Your task to perform on an android device: Set the phone to "Do not disturb". Image 0: 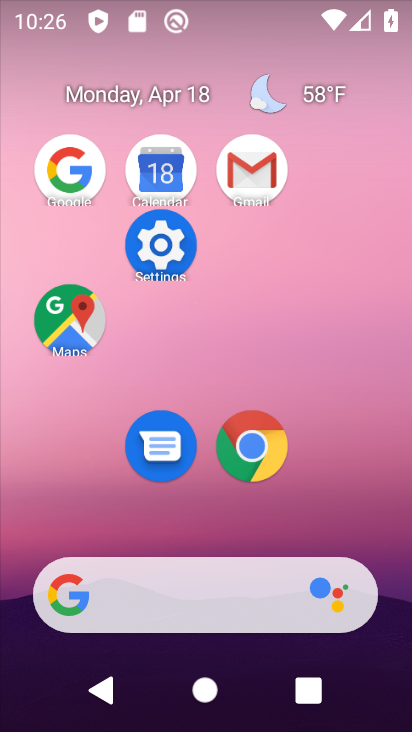
Step 0: click (155, 244)
Your task to perform on an android device: Set the phone to "Do not disturb". Image 1: 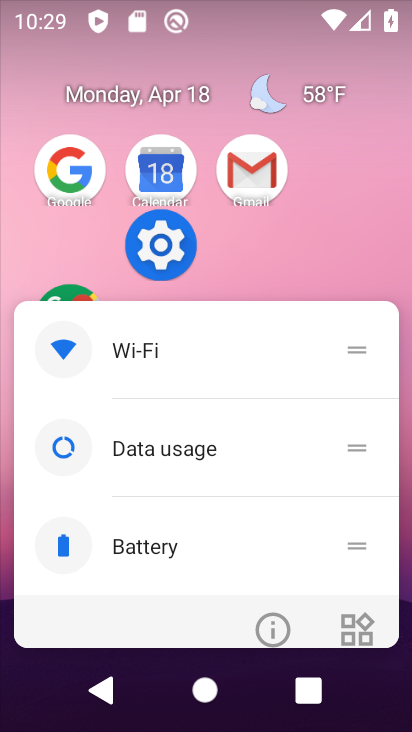
Step 1: click (172, 249)
Your task to perform on an android device: Set the phone to "Do not disturb". Image 2: 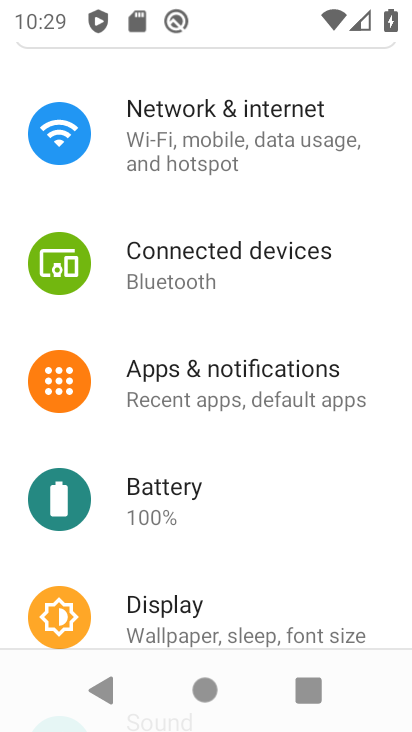
Step 2: drag from (265, 490) to (290, 236)
Your task to perform on an android device: Set the phone to "Do not disturb". Image 3: 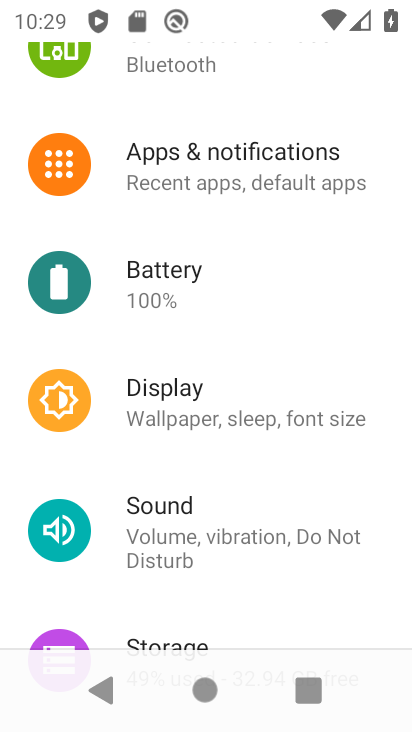
Step 3: click (290, 525)
Your task to perform on an android device: Set the phone to "Do not disturb". Image 4: 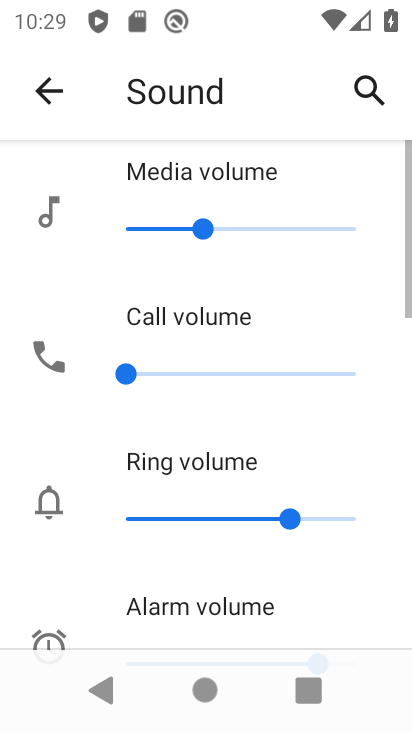
Step 4: drag from (250, 496) to (276, 144)
Your task to perform on an android device: Set the phone to "Do not disturb". Image 5: 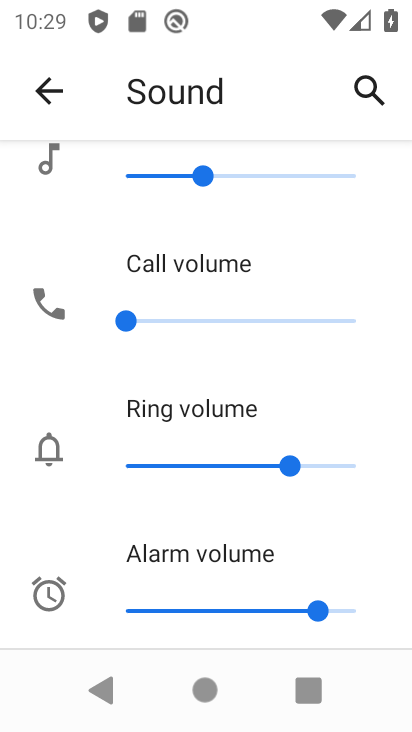
Step 5: drag from (244, 551) to (265, 167)
Your task to perform on an android device: Set the phone to "Do not disturb". Image 6: 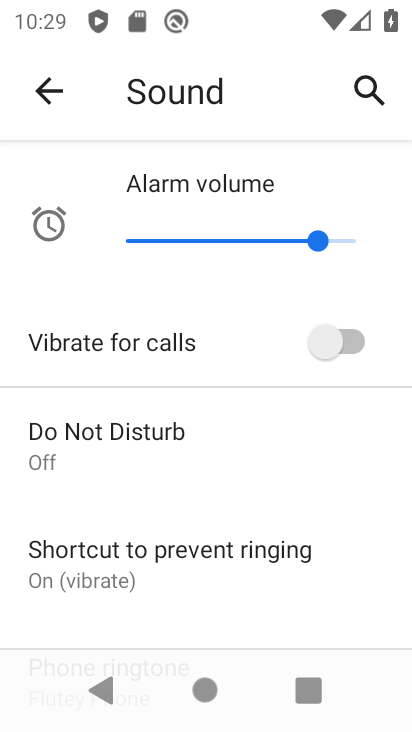
Step 6: click (228, 470)
Your task to perform on an android device: Set the phone to "Do not disturb". Image 7: 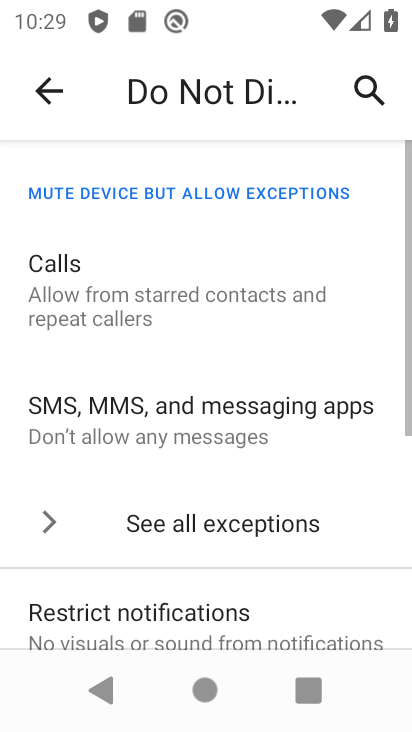
Step 7: drag from (223, 522) to (240, 181)
Your task to perform on an android device: Set the phone to "Do not disturb". Image 8: 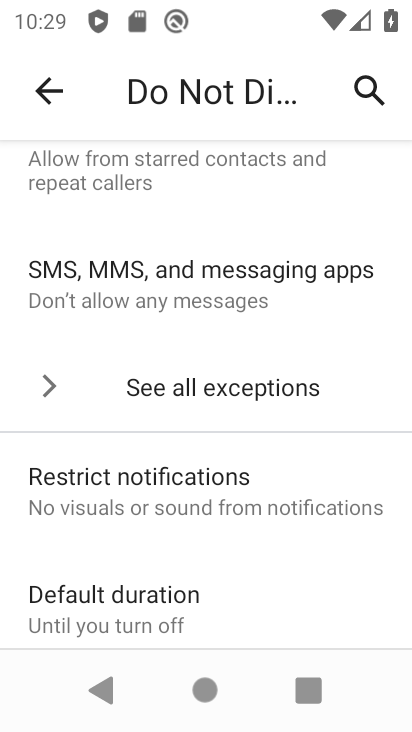
Step 8: drag from (232, 535) to (253, 185)
Your task to perform on an android device: Set the phone to "Do not disturb". Image 9: 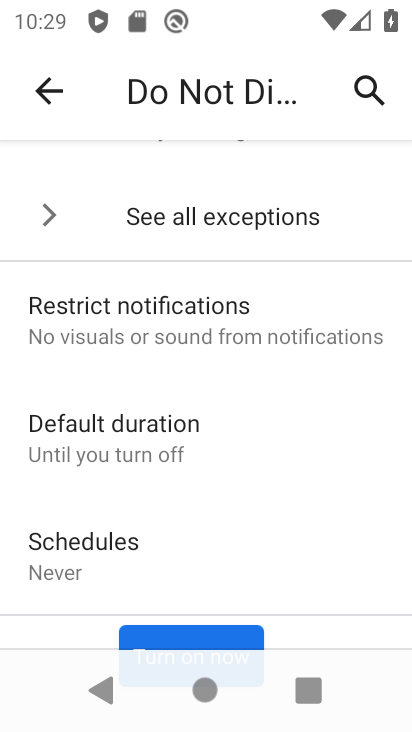
Step 9: drag from (218, 524) to (235, 159)
Your task to perform on an android device: Set the phone to "Do not disturb". Image 10: 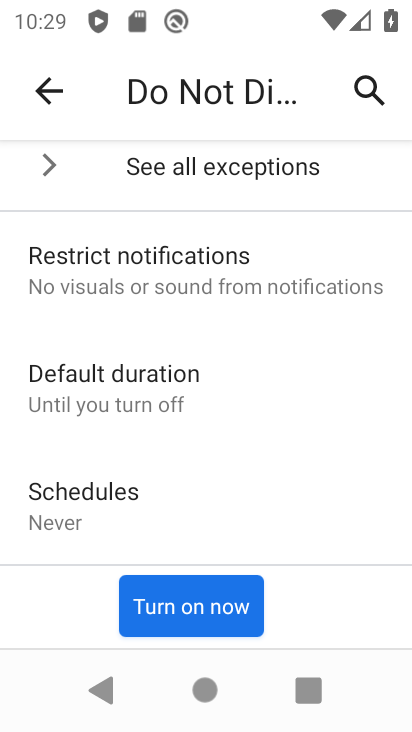
Step 10: click (229, 615)
Your task to perform on an android device: Set the phone to "Do not disturb". Image 11: 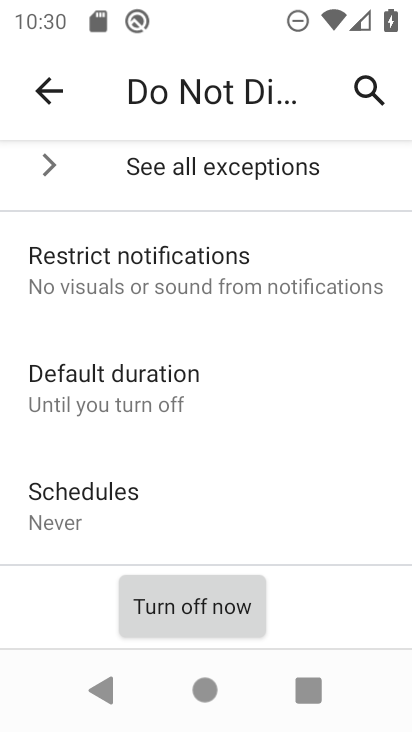
Step 11: task complete